Your task to perform on an android device: Go to Google Image 0: 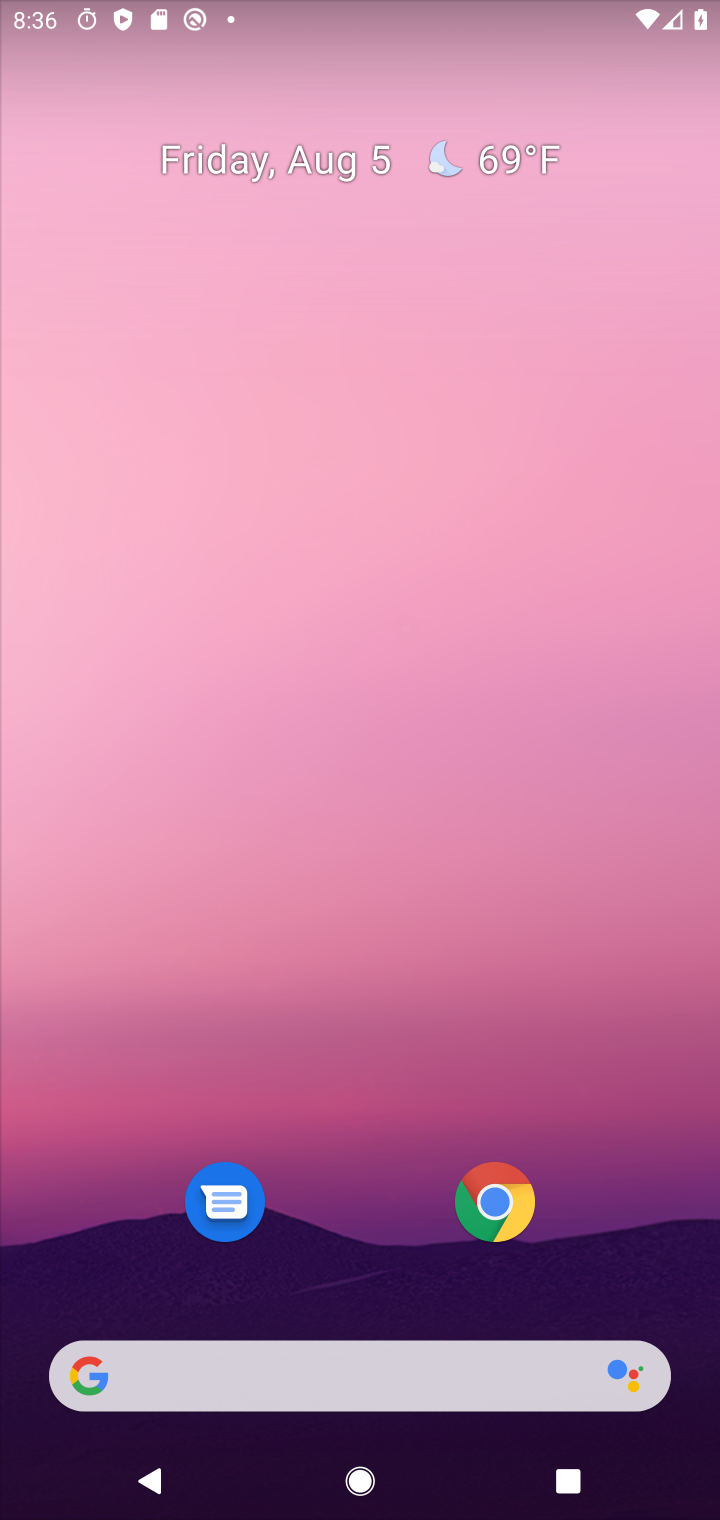
Step 0: drag from (316, 1241) to (496, 125)
Your task to perform on an android device: Go to Google Image 1: 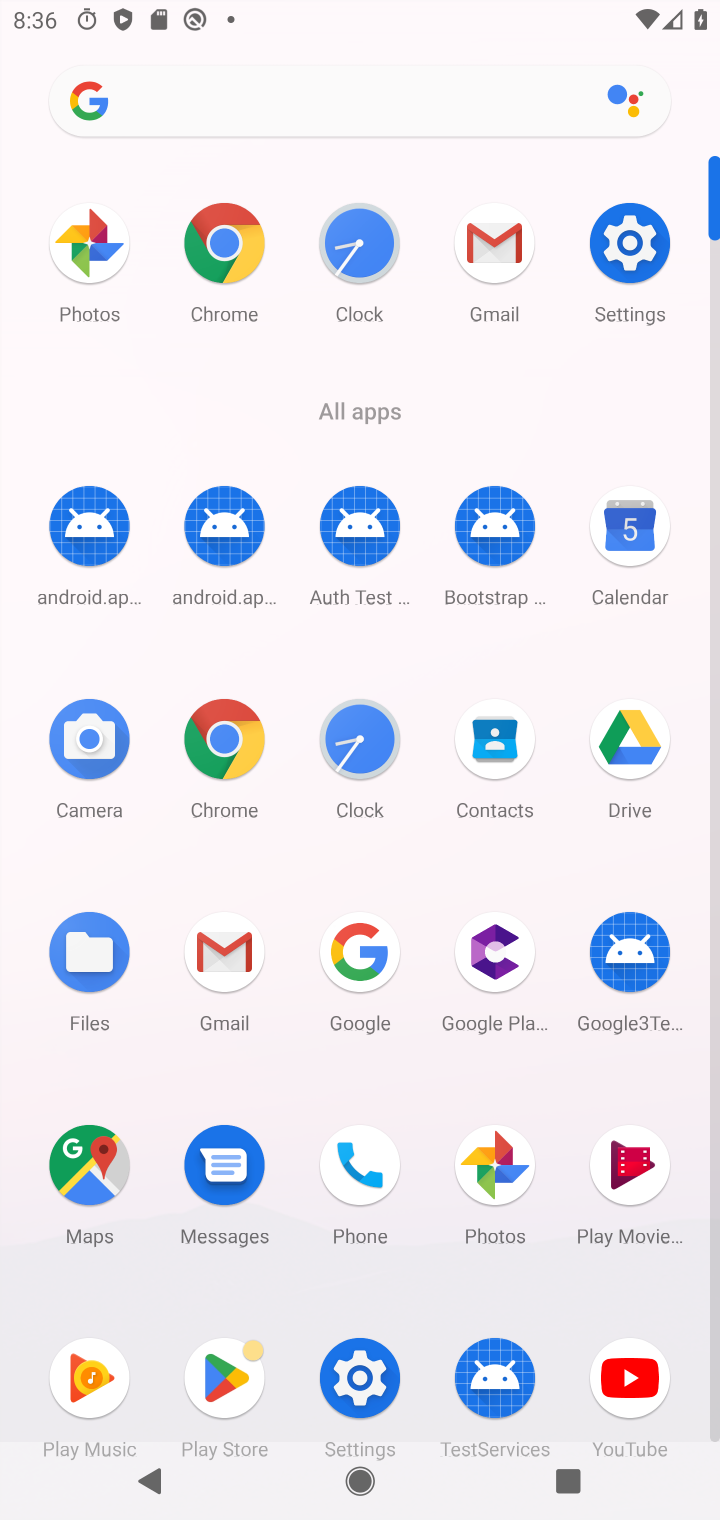
Step 1: click (355, 965)
Your task to perform on an android device: Go to Google Image 2: 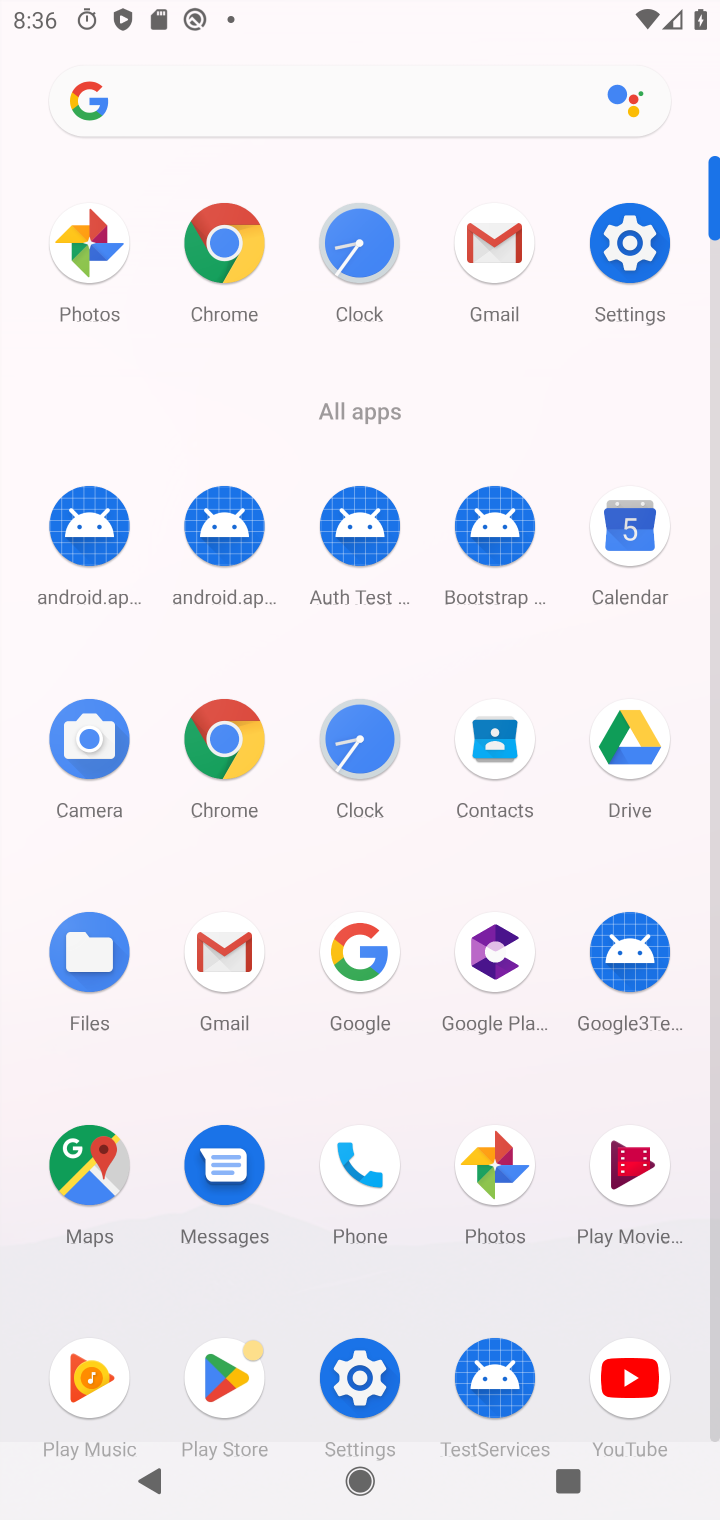
Step 2: click (355, 965)
Your task to perform on an android device: Go to Google Image 3: 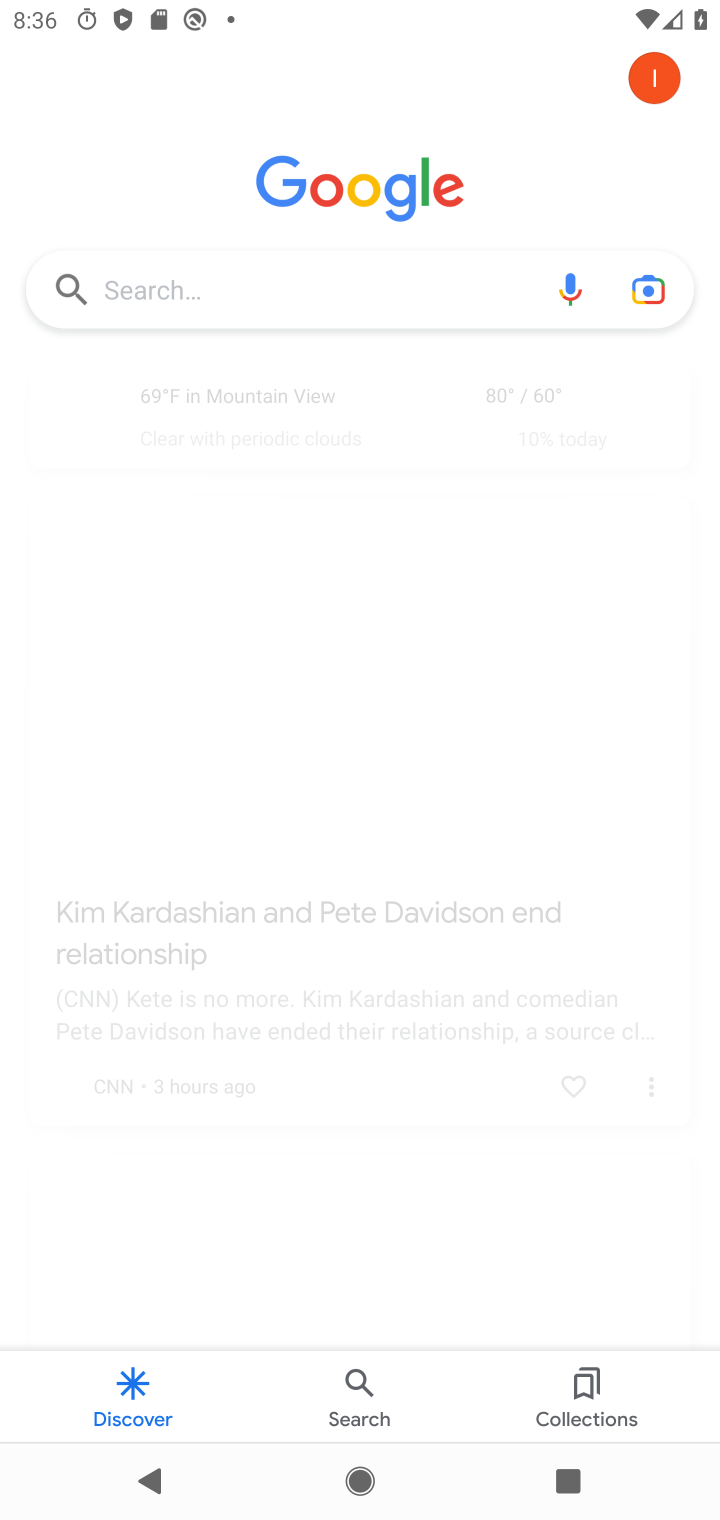
Step 3: task complete